Your task to perform on an android device: find which apps use the phone's location Image 0: 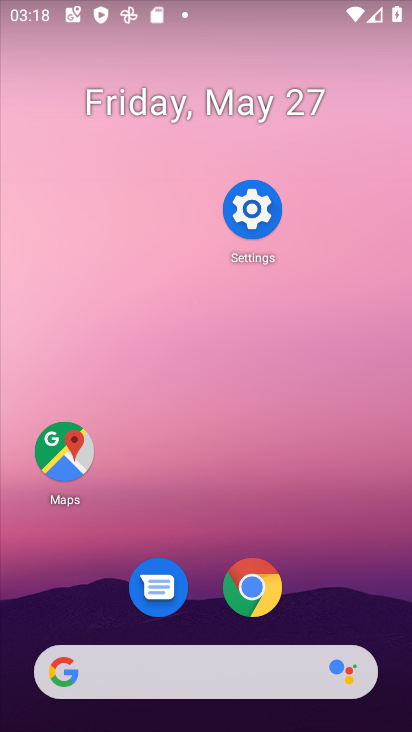
Step 0: drag from (363, 627) to (350, 162)
Your task to perform on an android device: find which apps use the phone's location Image 1: 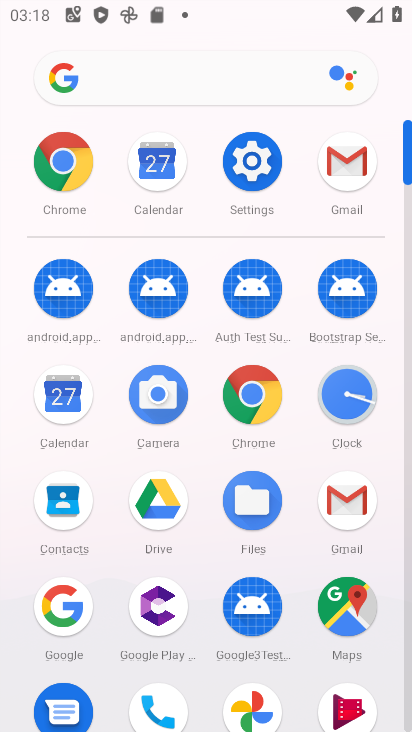
Step 1: click (256, 164)
Your task to perform on an android device: find which apps use the phone's location Image 2: 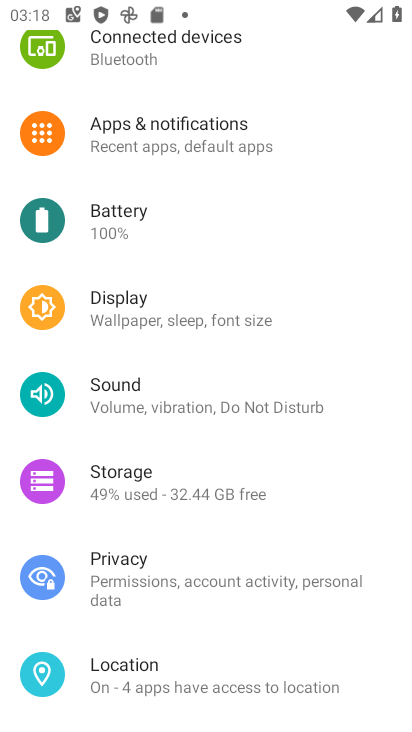
Step 2: click (183, 689)
Your task to perform on an android device: find which apps use the phone's location Image 3: 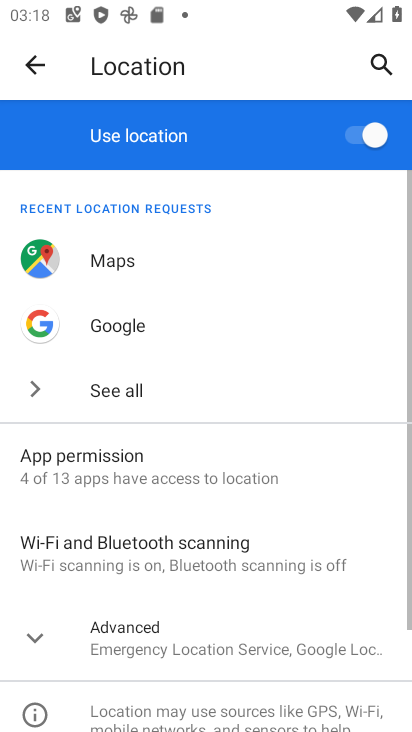
Step 3: click (150, 467)
Your task to perform on an android device: find which apps use the phone's location Image 4: 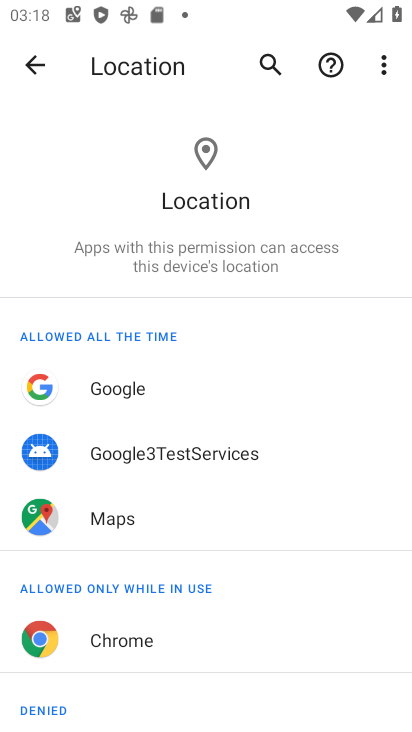
Step 4: task complete